Your task to perform on an android device: toggle data saver in the chrome app Image 0: 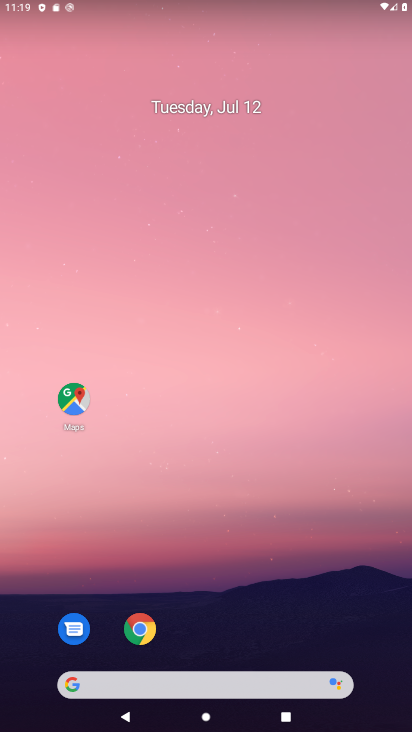
Step 0: click (142, 636)
Your task to perform on an android device: toggle data saver in the chrome app Image 1: 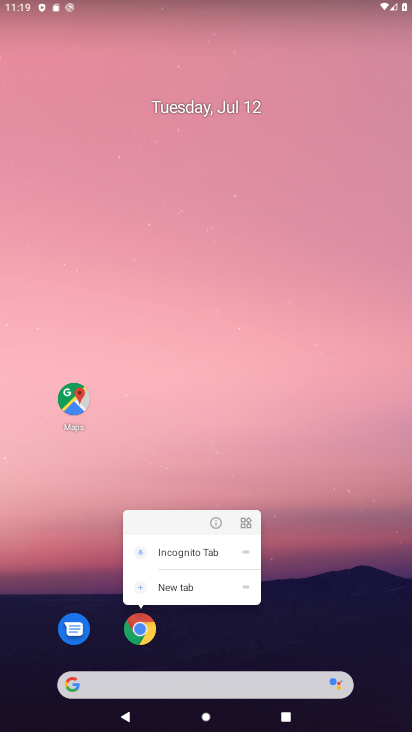
Step 1: click (142, 636)
Your task to perform on an android device: toggle data saver in the chrome app Image 2: 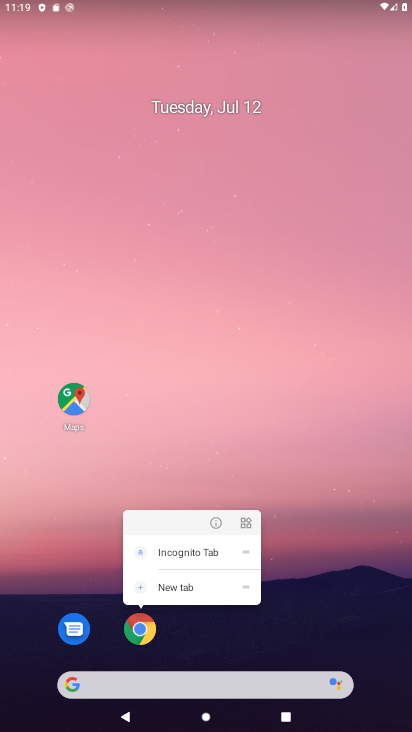
Step 2: click (145, 630)
Your task to perform on an android device: toggle data saver in the chrome app Image 3: 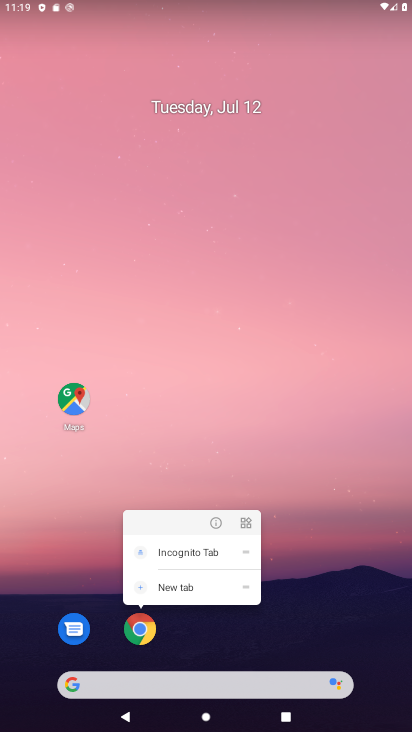
Step 3: click (145, 630)
Your task to perform on an android device: toggle data saver in the chrome app Image 4: 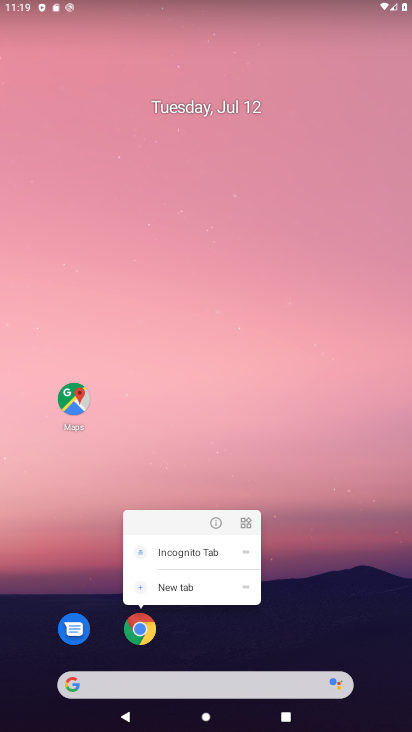
Step 4: click (130, 632)
Your task to perform on an android device: toggle data saver in the chrome app Image 5: 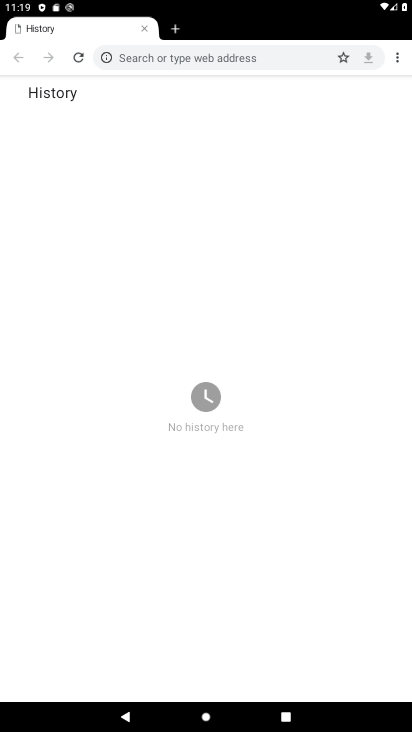
Step 5: click (397, 56)
Your task to perform on an android device: toggle data saver in the chrome app Image 6: 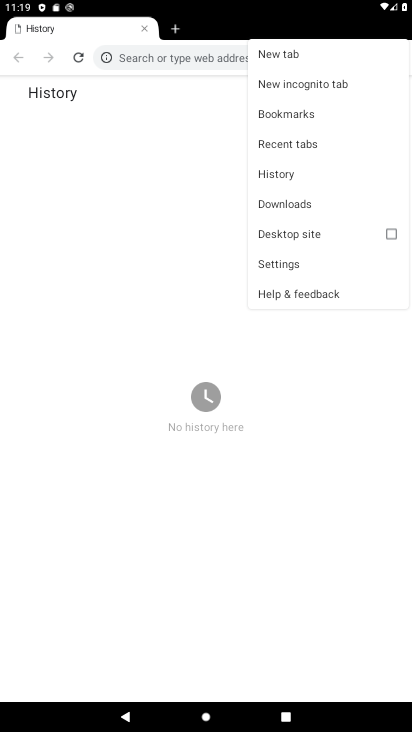
Step 6: click (296, 264)
Your task to perform on an android device: toggle data saver in the chrome app Image 7: 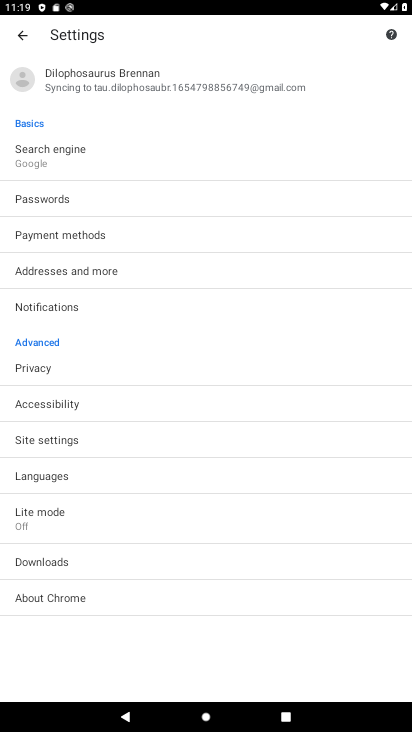
Step 7: click (25, 509)
Your task to perform on an android device: toggle data saver in the chrome app Image 8: 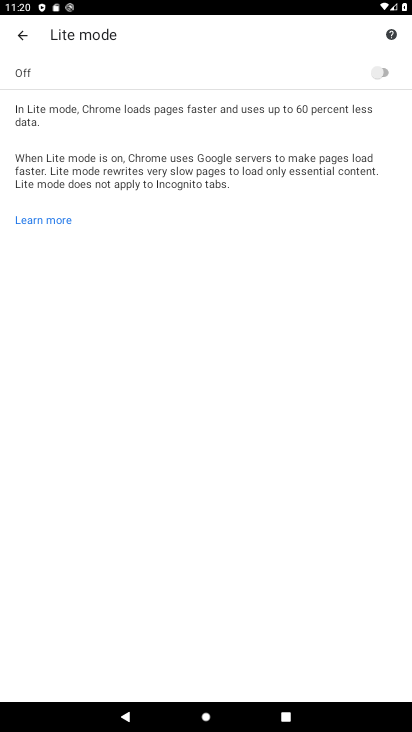
Step 8: click (382, 67)
Your task to perform on an android device: toggle data saver in the chrome app Image 9: 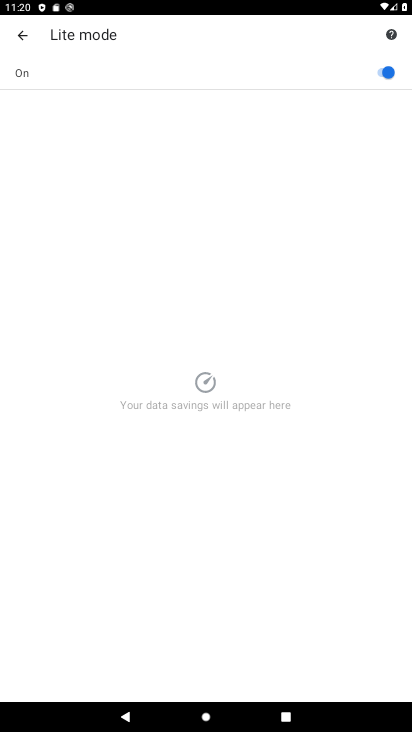
Step 9: task complete